Your task to perform on an android device: Open Google Chrome and click the shortcut for Amazon.com Image 0: 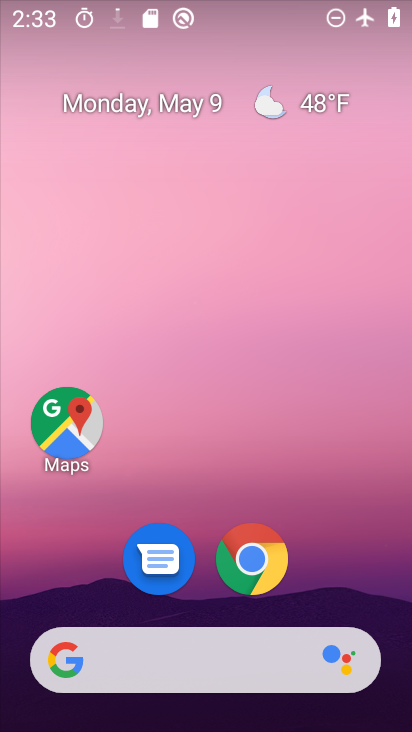
Step 0: click (309, 184)
Your task to perform on an android device: Open Google Chrome and click the shortcut for Amazon.com Image 1: 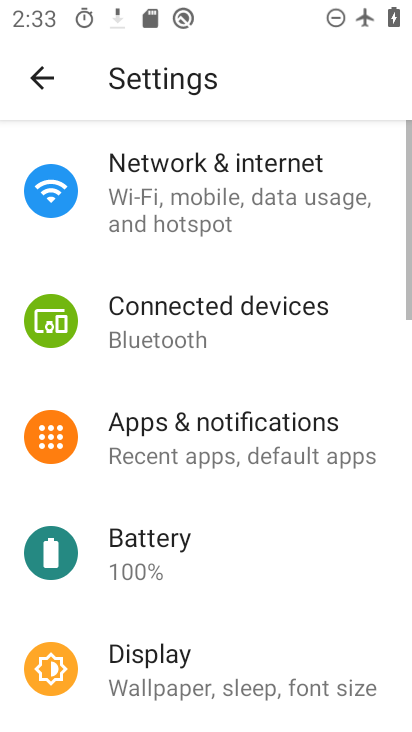
Step 1: drag from (242, 595) to (237, 351)
Your task to perform on an android device: Open Google Chrome and click the shortcut for Amazon.com Image 2: 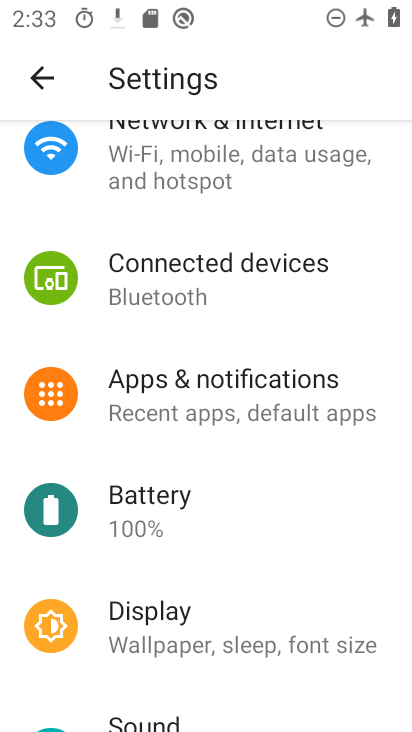
Step 2: drag from (280, 663) to (265, 283)
Your task to perform on an android device: Open Google Chrome and click the shortcut for Amazon.com Image 3: 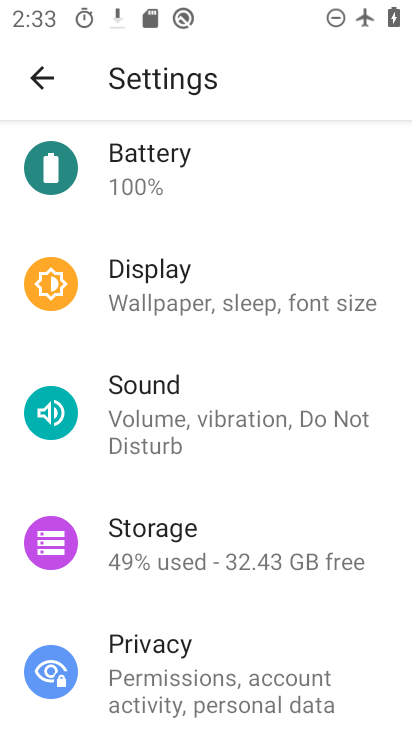
Step 3: drag from (274, 249) to (284, 709)
Your task to perform on an android device: Open Google Chrome and click the shortcut for Amazon.com Image 4: 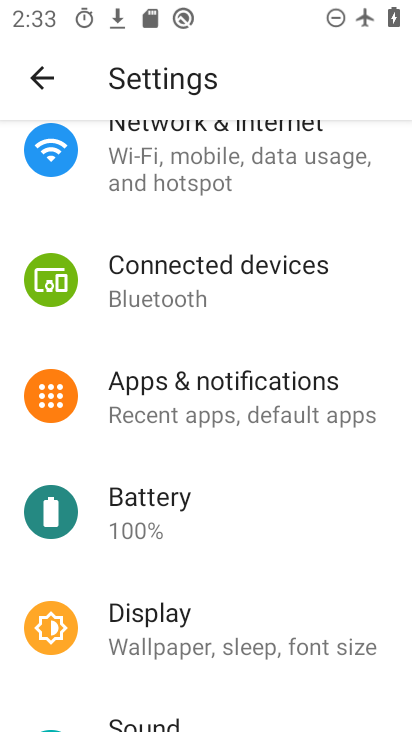
Step 4: press back button
Your task to perform on an android device: Open Google Chrome and click the shortcut for Amazon.com Image 5: 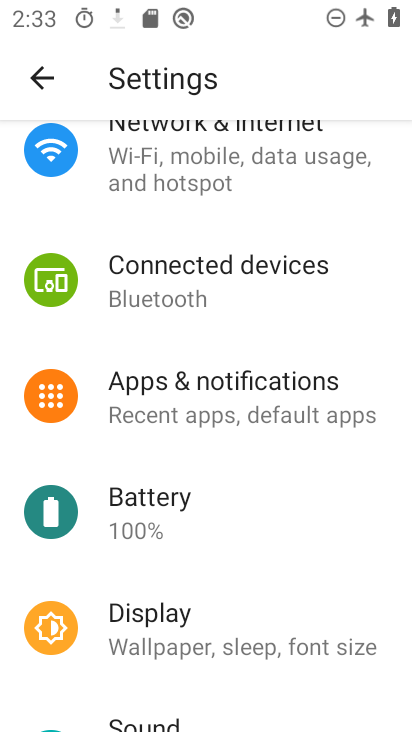
Step 5: drag from (284, 709) to (395, 429)
Your task to perform on an android device: Open Google Chrome and click the shortcut for Amazon.com Image 6: 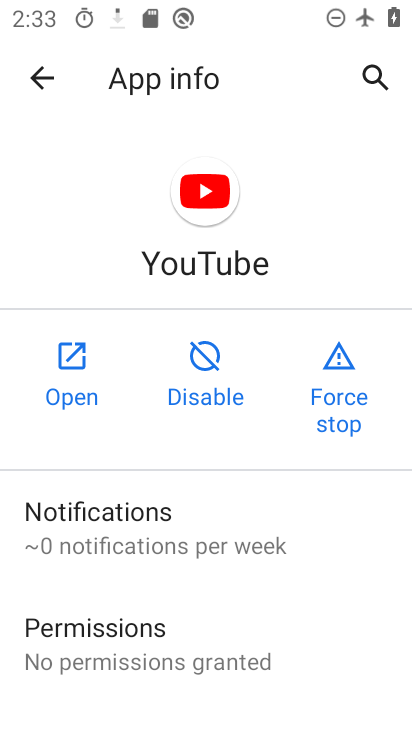
Step 6: press home button
Your task to perform on an android device: Open Google Chrome and click the shortcut for Amazon.com Image 7: 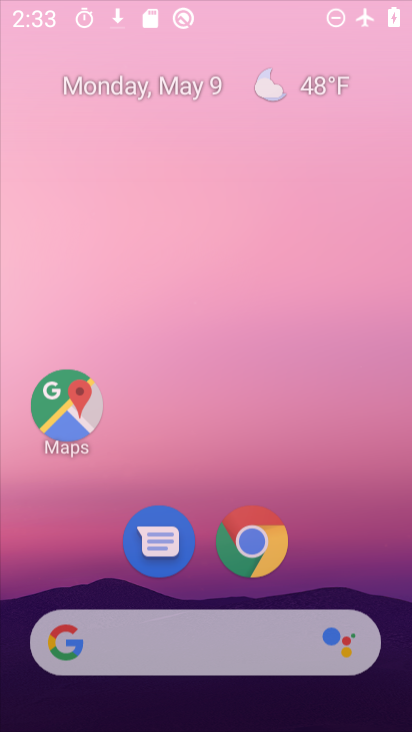
Step 7: drag from (239, 672) to (357, 86)
Your task to perform on an android device: Open Google Chrome and click the shortcut for Amazon.com Image 8: 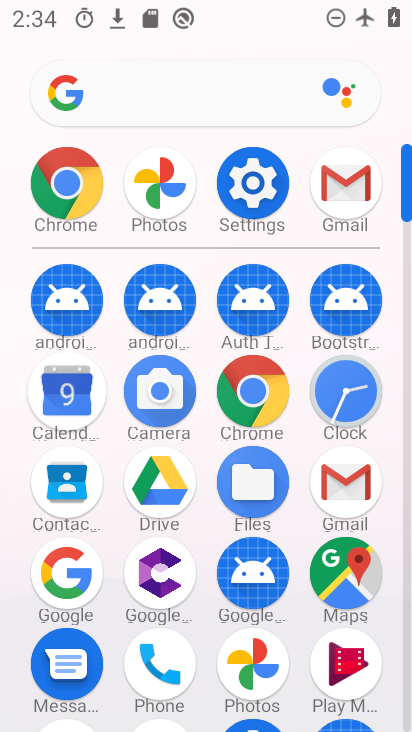
Step 8: drag from (203, 699) to (192, 218)
Your task to perform on an android device: Open Google Chrome and click the shortcut for Amazon.com Image 9: 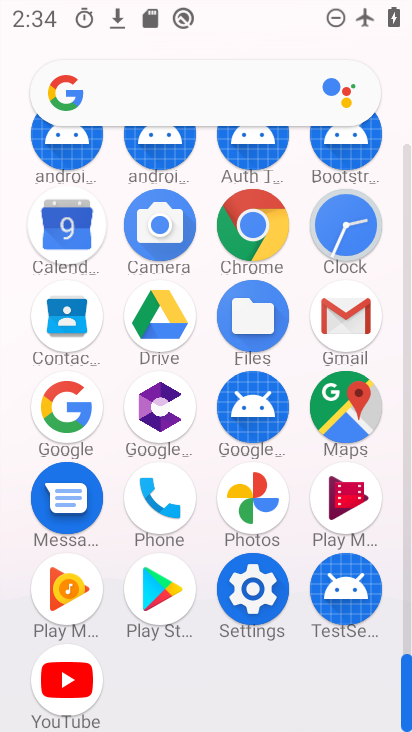
Step 9: click (170, 89)
Your task to perform on an android device: Open Google Chrome and click the shortcut for Amazon.com Image 10: 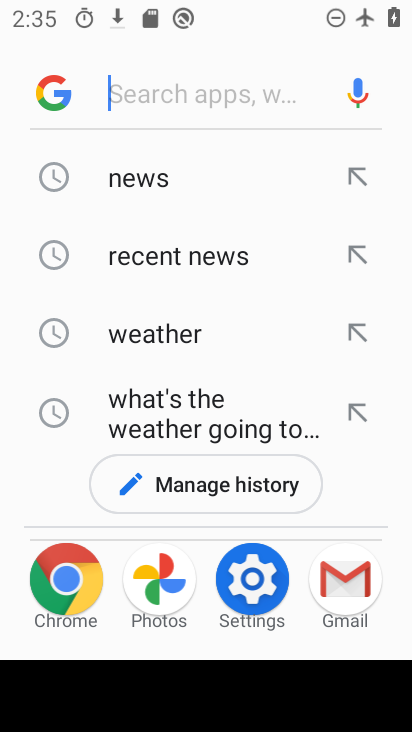
Step 10: drag from (235, 428) to (309, 134)
Your task to perform on an android device: Open Google Chrome and click the shortcut for Amazon.com Image 11: 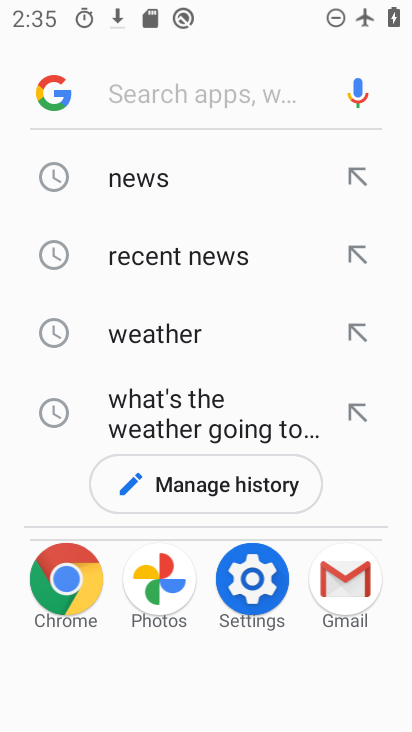
Step 11: click (234, 93)
Your task to perform on an android device: Open Google Chrome and click the shortcut for Amazon.com Image 12: 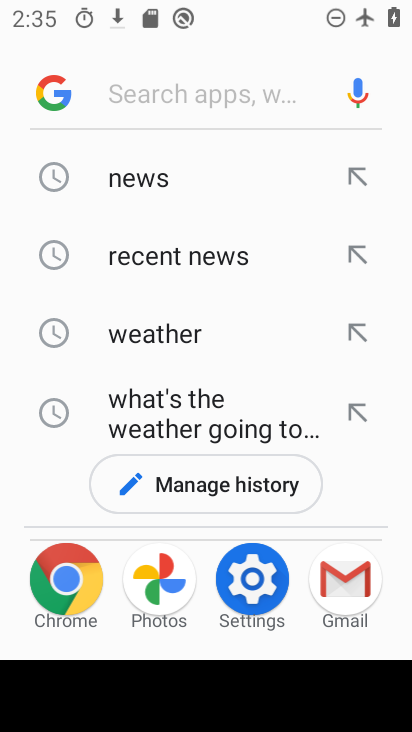
Step 12: type "amazon"
Your task to perform on an android device: Open Google Chrome and click the shortcut for Amazon.com Image 13: 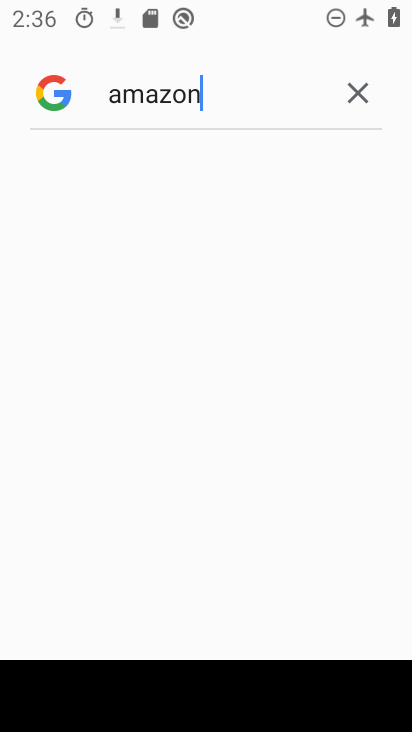
Step 13: drag from (213, 547) to (303, 236)
Your task to perform on an android device: Open Google Chrome and click the shortcut for Amazon.com Image 14: 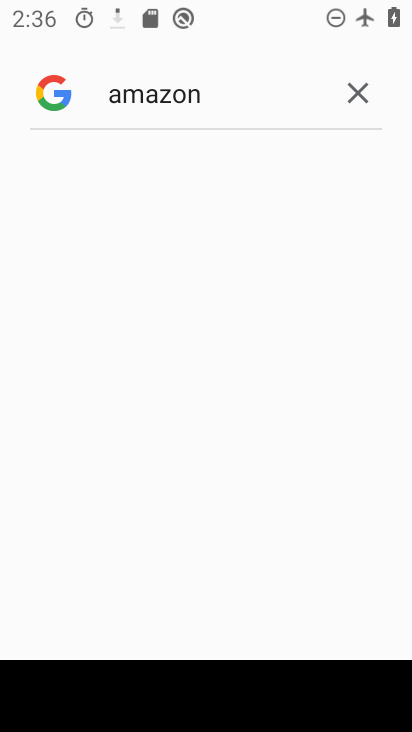
Step 14: click (308, 281)
Your task to perform on an android device: Open Google Chrome and click the shortcut for Amazon.com Image 15: 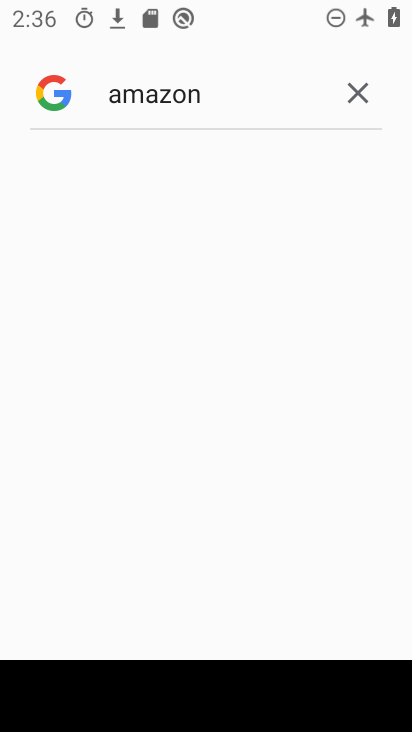
Step 15: task complete